Your task to perform on an android device: Open location settings Image 0: 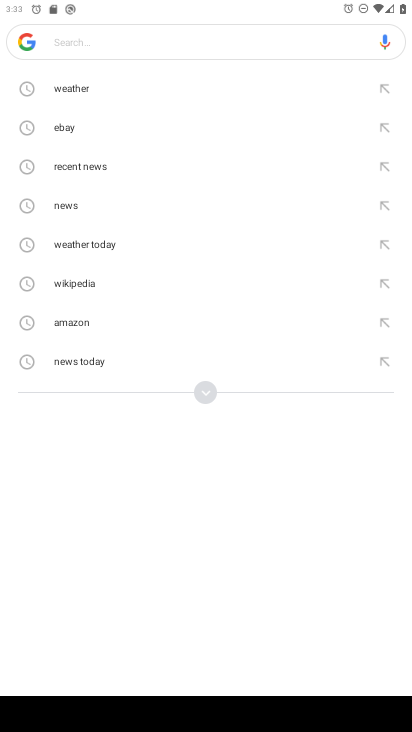
Step 0: press back button
Your task to perform on an android device: Open location settings Image 1: 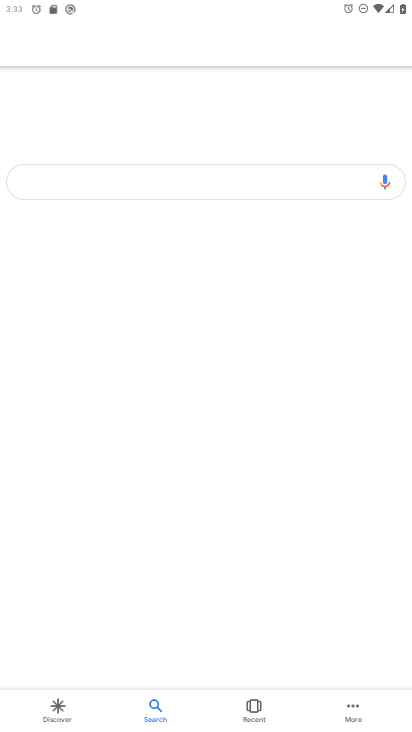
Step 1: press back button
Your task to perform on an android device: Open location settings Image 2: 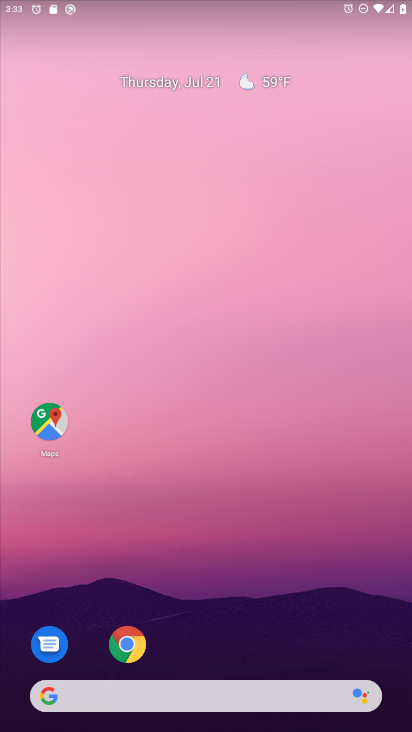
Step 2: drag from (96, 431) to (215, 17)
Your task to perform on an android device: Open location settings Image 3: 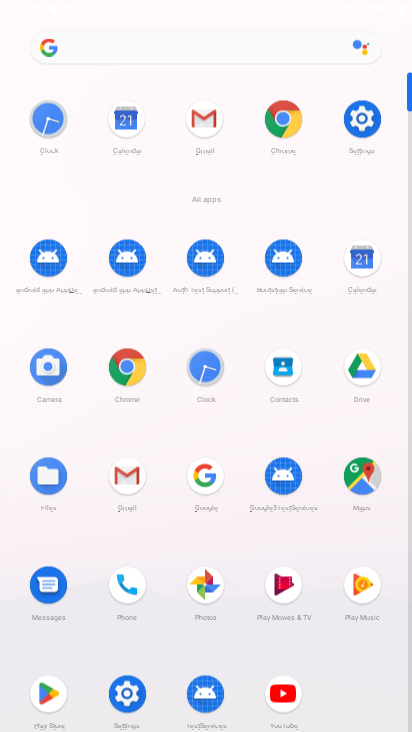
Step 3: click (57, 192)
Your task to perform on an android device: Open location settings Image 4: 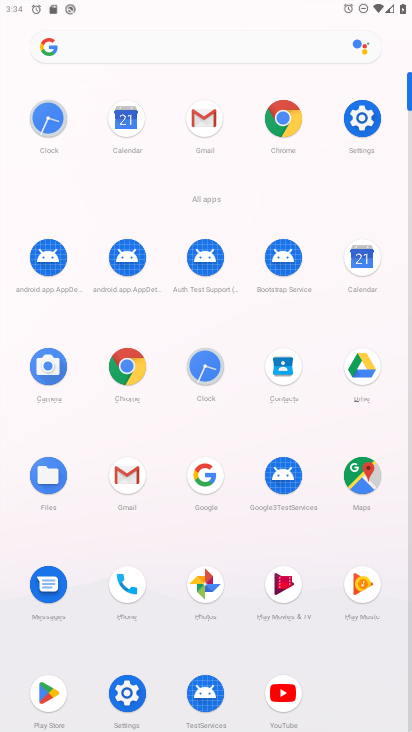
Step 4: click (354, 111)
Your task to perform on an android device: Open location settings Image 5: 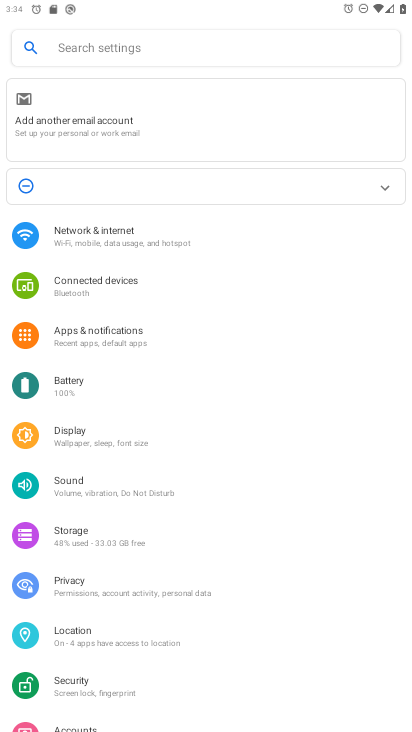
Step 5: click (82, 644)
Your task to perform on an android device: Open location settings Image 6: 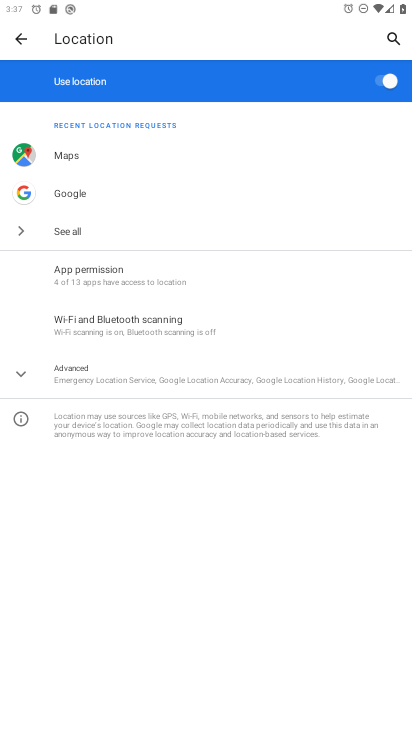
Step 6: task complete